Your task to perform on an android device: read, delete, or share a saved page in the chrome app Image 0: 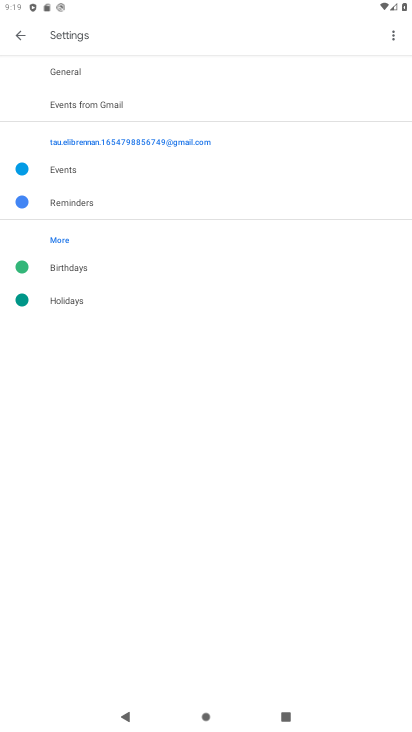
Step 0: press home button
Your task to perform on an android device: read, delete, or share a saved page in the chrome app Image 1: 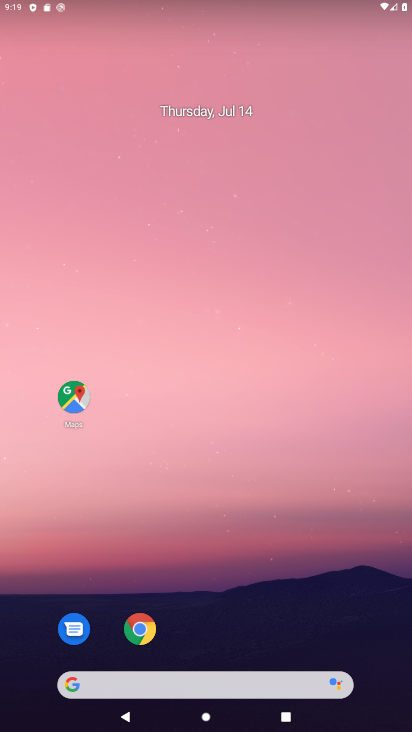
Step 1: drag from (219, 640) to (228, 132)
Your task to perform on an android device: read, delete, or share a saved page in the chrome app Image 2: 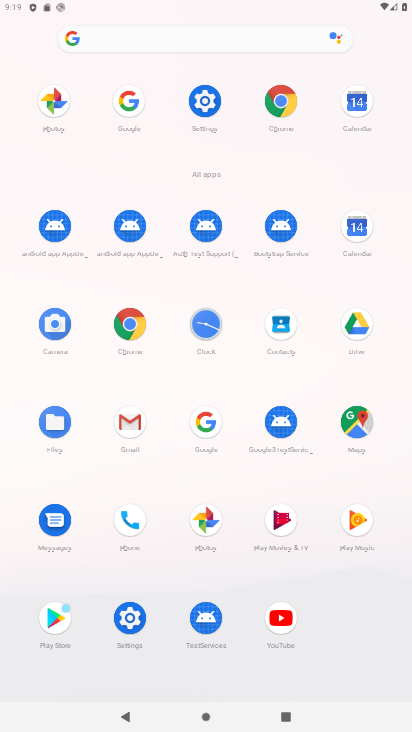
Step 2: click (125, 321)
Your task to perform on an android device: read, delete, or share a saved page in the chrome app Image 3: 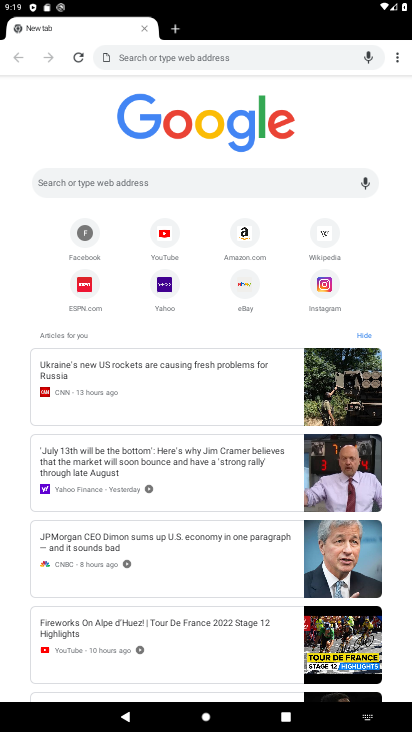
Step 3: click (396, 57)
Your task to perform on an android device: read, delete, or share a saved page in the chrome app Image 4: 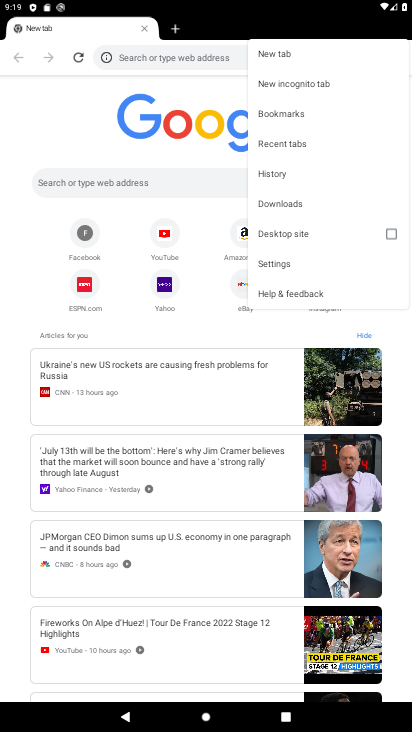
Step 4: click (287, 210)
Your task to perform on an android device: read, delete, or share a saved page in the chrome app Image 5: 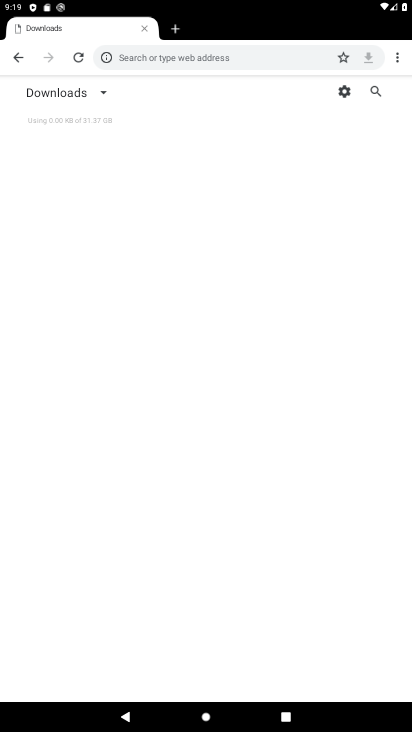
Step 5: task complete